Your task to perform on an android device: refresh tabs in the chrome app Image 0: 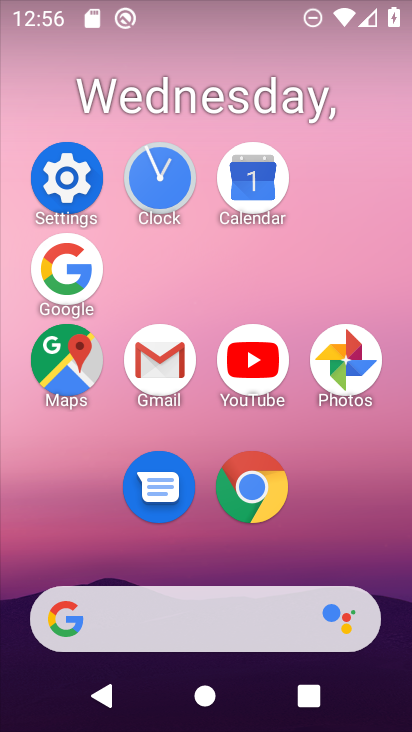
Step 0: click (242, 509)
Your task to perform on an android device: refresh tabs in the chrome app Image 1: 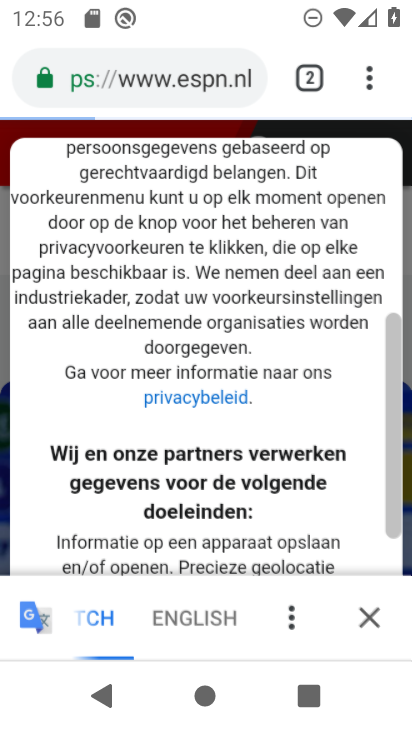
Step 1: click (384, 86)
Your task to perform on an android device: refresh tabs in the chrome app Image 2: 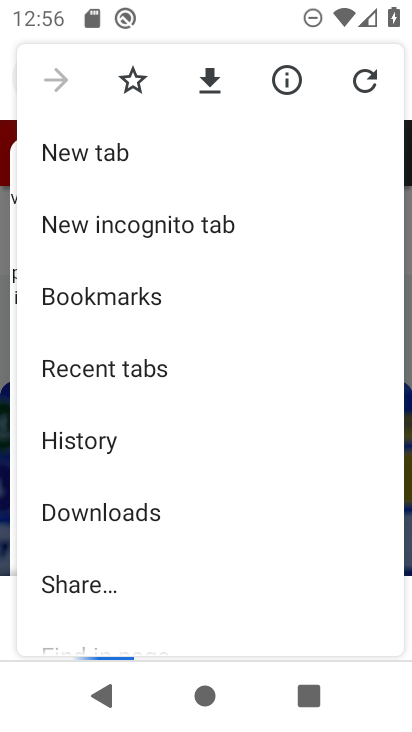
Step 2: click (364, 92)
Your task to perform on an android device: refresh tabs in the chrome app Image 3: 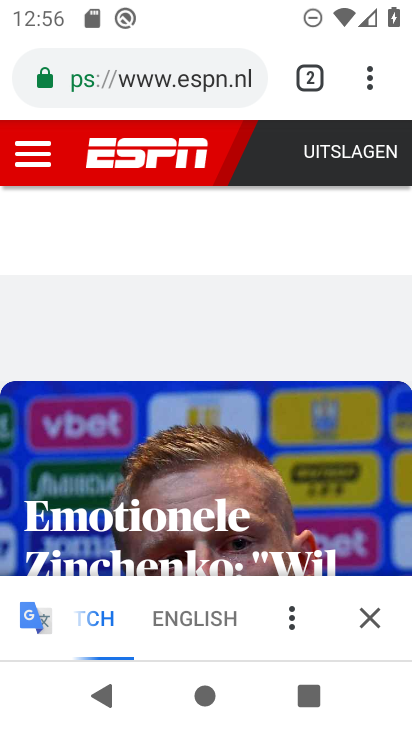
Step 3: task complete